Your task to perform on an android device: allow notifications from all sites in the chrome app Image 0: 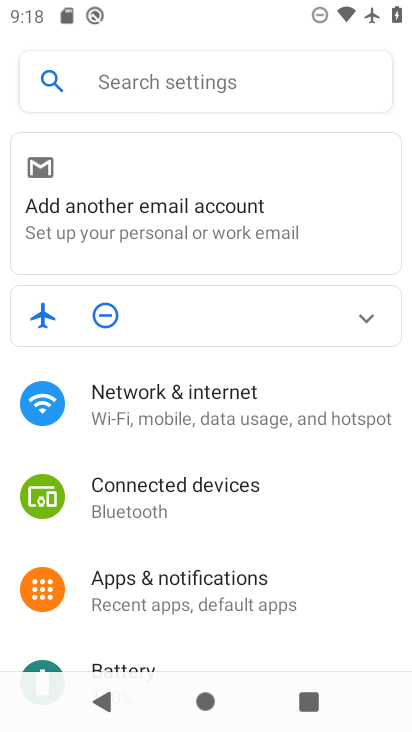
Step 0: press home button
Your task to perform on an android device: allow notifications from all sites in the chrome app Image 1: 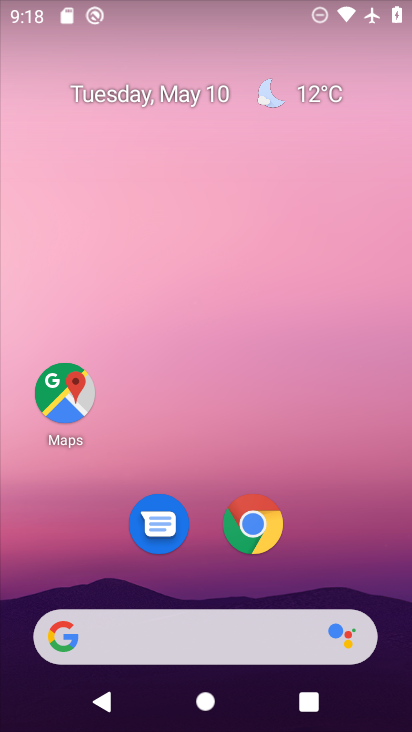
Step 1: click (253, 506)
Your task to perform on an android device: allow notifications from all sites in the chrome app Image 2: 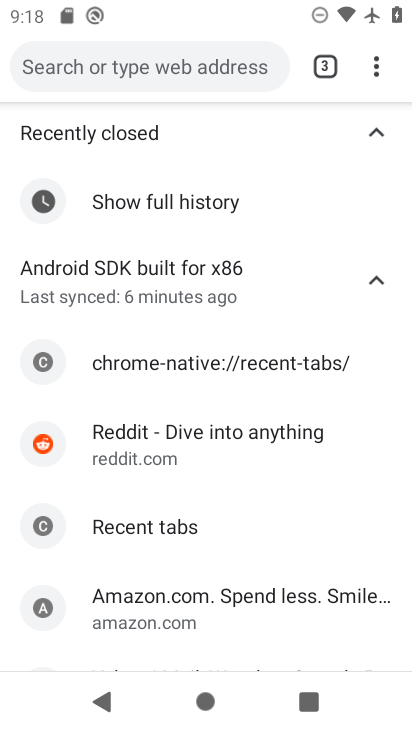
Step 2: click (371, 67)
Your task to perform on an android device: allow notifications from all sites in the chrome app Image 3: 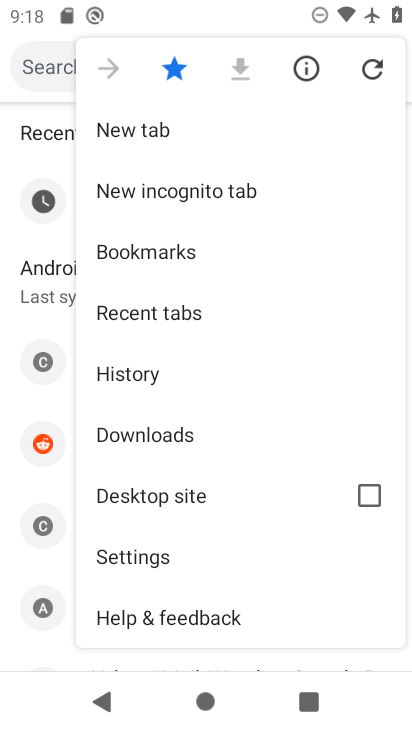
Step 3: click (217, 549)
Your task to perform on an android device: allow notifications from all sites in the chrome app Image 4: 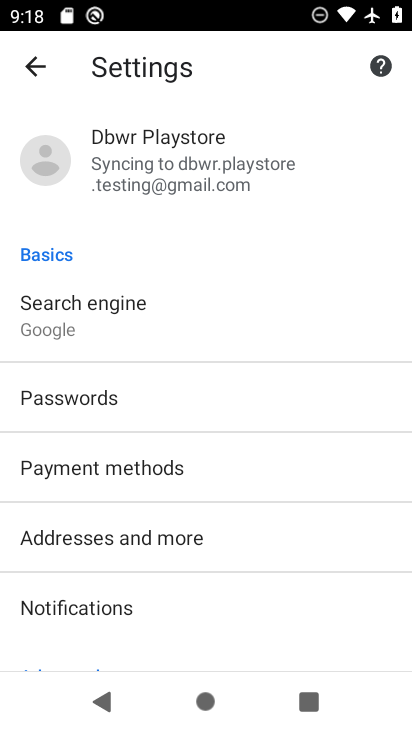
Step 4: click (169, 606)
Your task to perform on an android device: allow notifications from all sites in the chrome app Image 5: 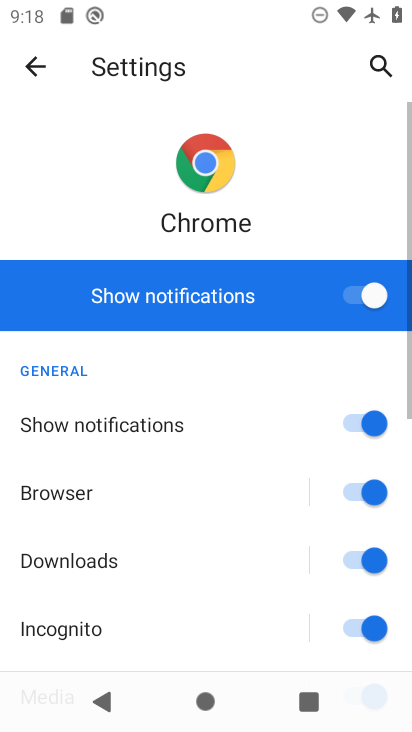
Step 5: task complete